Your task to perform on an android device: Open Chrome and go to the settings page Image 0: 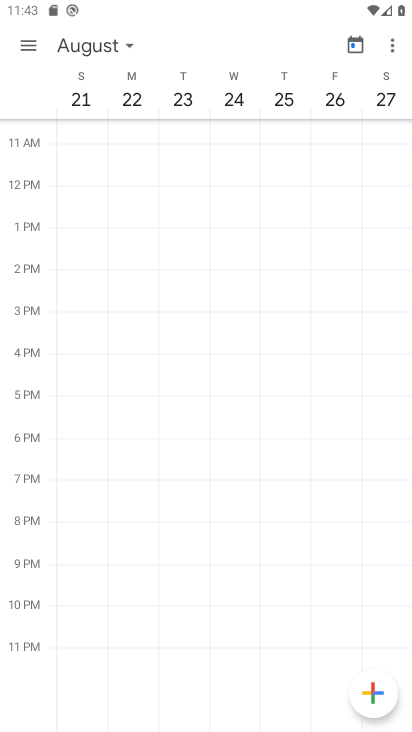
Step 0: press home button
Your task to perform on an android device: Open Chrome and go to the settings page Image 1: 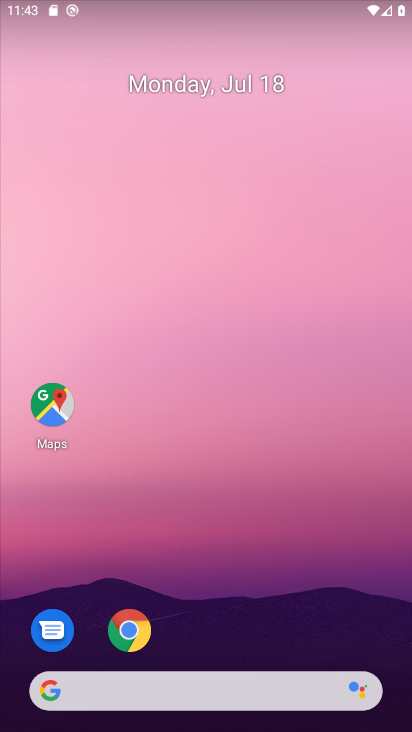
Step 1: click (133, 639)
Your task to perform on an android device: Open Chrome and go to the settings page Image 2: 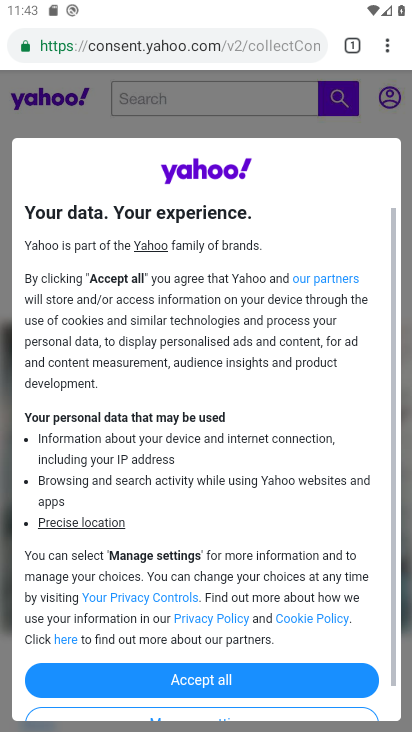
Step 2: click (388, 49)
Your task to perform on an android device: Open Chrome and go to the settings page Image 3: 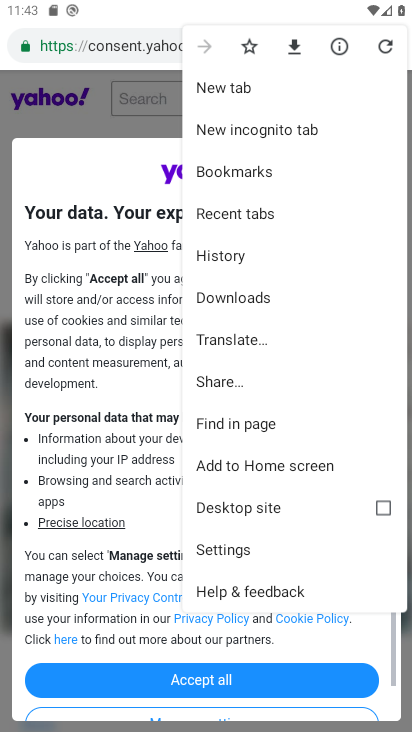
Step 3: click (234, 545)
Your task to perform on an android device: Open Chrome and go to the settings page Image 4: 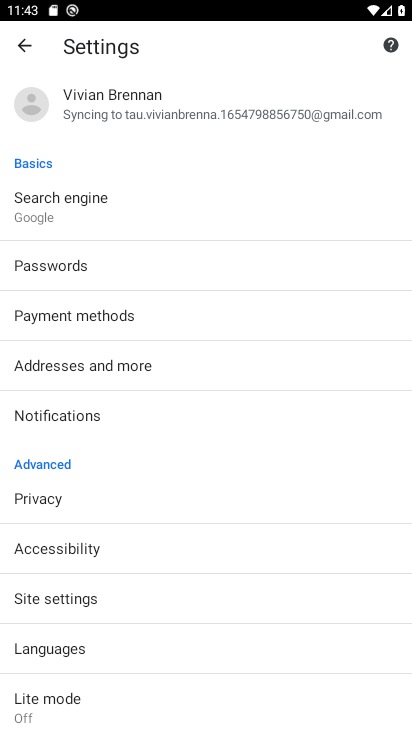
Step 4: task complete